Your task to perform on an android device: Open Google Maps and go to "Timeline" Image 0: 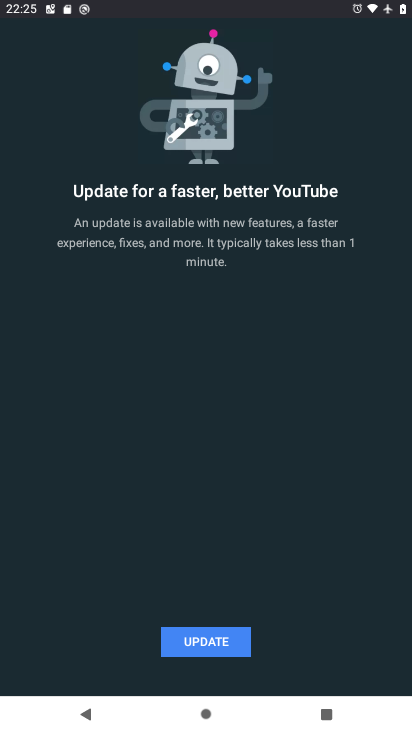
Step 0: press home button
Your task to perform on an android device: Open Google Maps and go to "Timeline" Image 1: 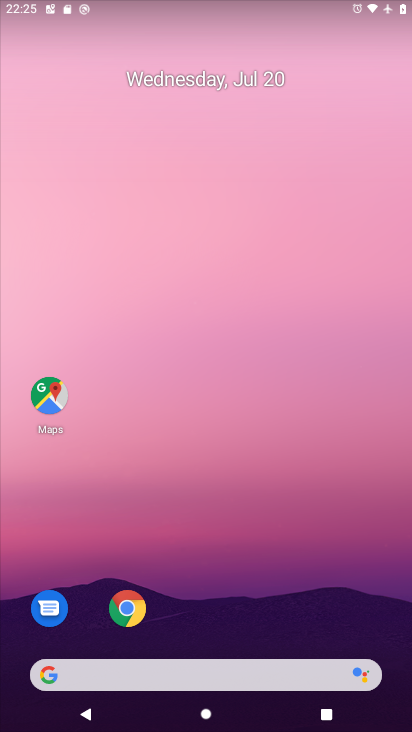
Step 1: drag from (160, 634) to (172, 82)
Your task to perform on an android device: Open Google Maps and go to "Timeline" Image 2: 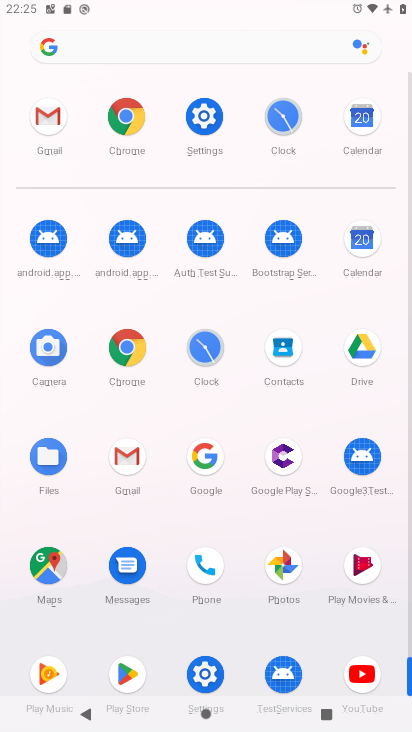
Step 2: click (34, 554)
Your task to perform on an android device: Open Google Maps and go to "Timeline" Image 3: 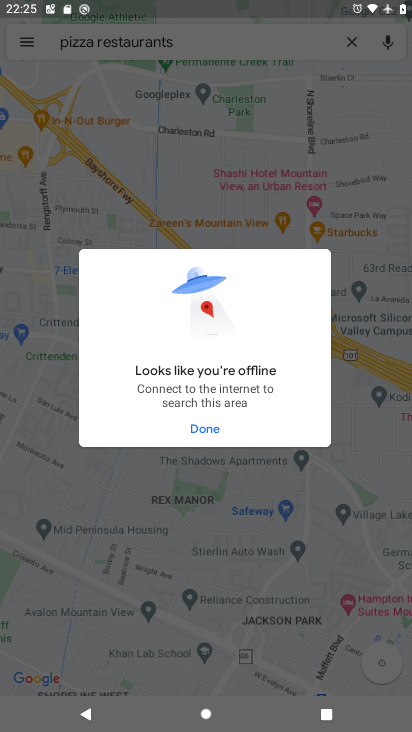
Step 3: click (192, 423)
Your task to perform on an android device: Open Google Maps and go to "Timeline" Image 4: 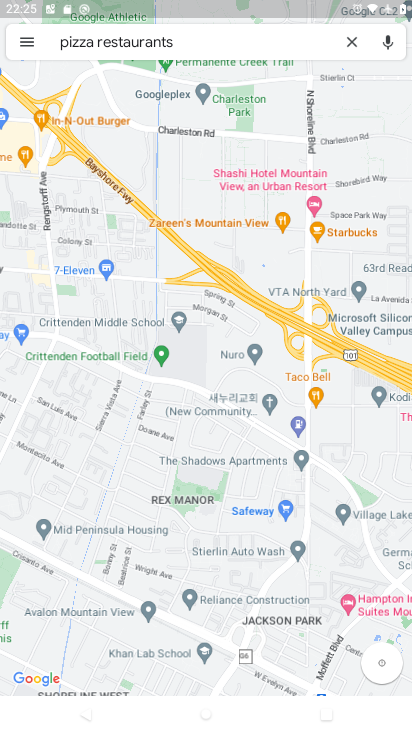
Step 4: click (29, 43)
Your task to perform on an android device: Open Google Maps and go to "Timeline" Image 5: 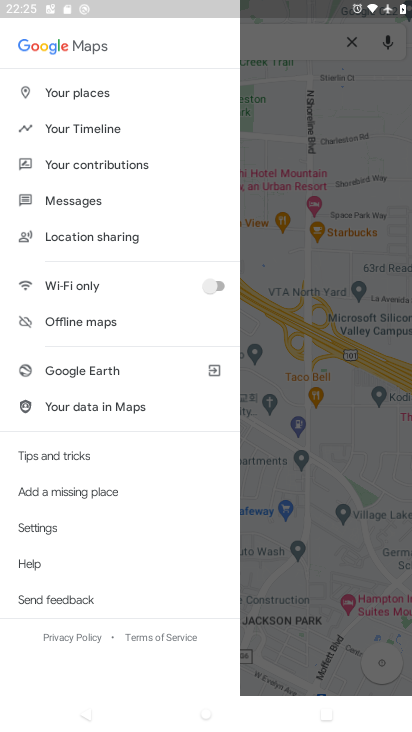
Step 5: click (92, 117)
Your task to perform on an android device: Open Google Maps and go to "Timeline" Image 6: 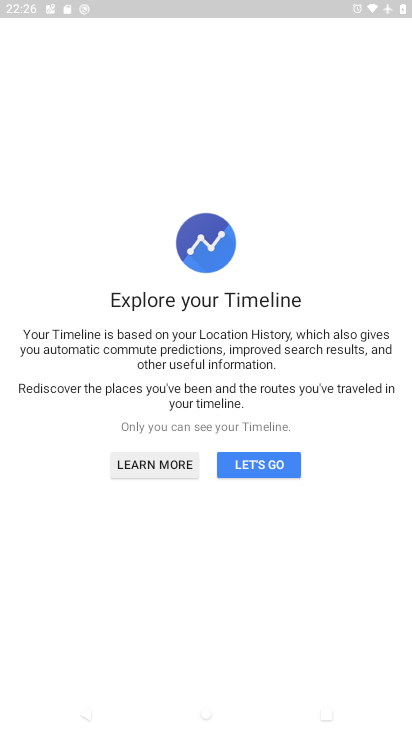
Step 6: click (243, 466)
Your task to perform on an android device: Open Google Maps and go to "Timeline" Image 7: 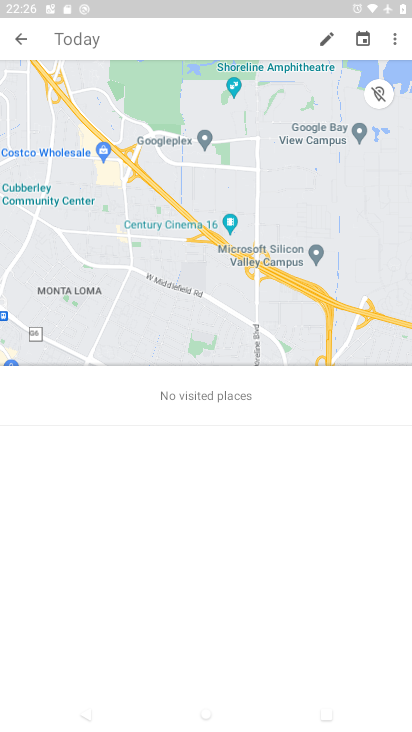
Step 7: task complete